Your task to perform on an android device: Open Google Chrome and click the shortcut for Amazon.com Image 0: 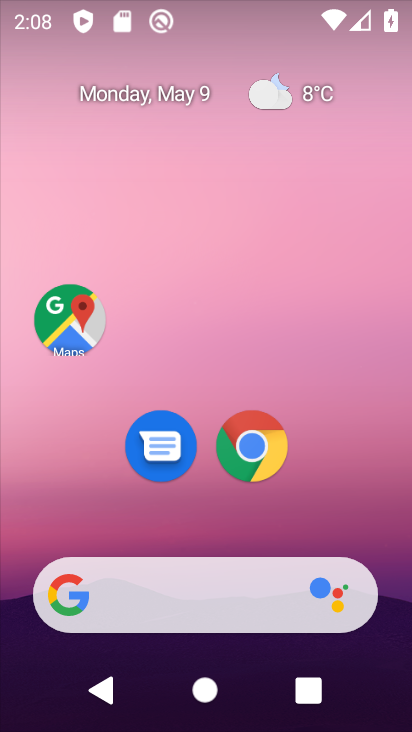
Step 0: click (253, 439)
Your task to perform on an android device: Open Google Chrome and click the shortcut for Amazon.com Image 1: 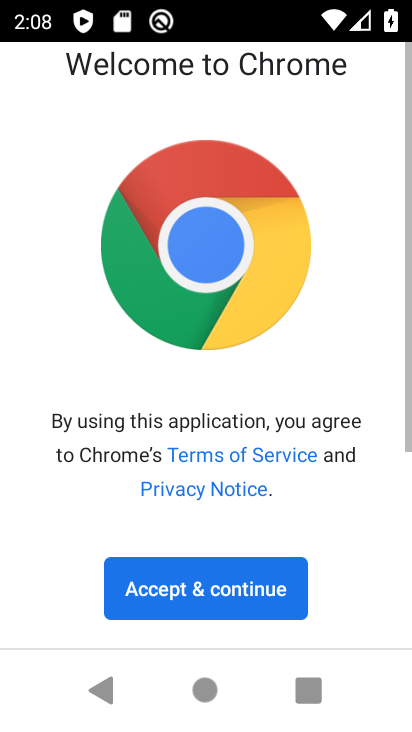
Step 1: click (189, 597)
Your task to perform on an android device: Open Google Chrome and click the shortcut for Amazon.com Image 2: 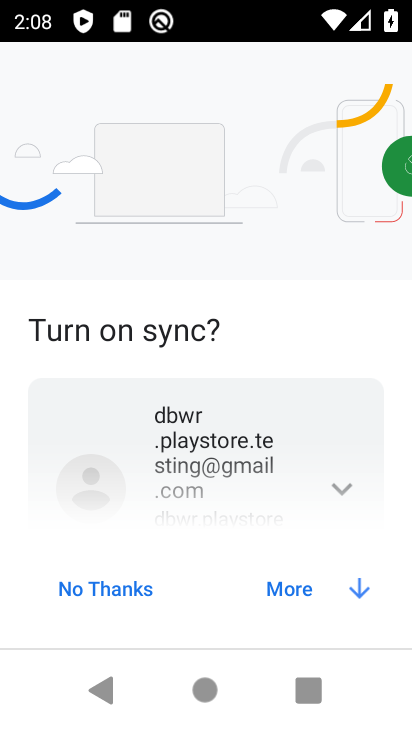
Step 2: click (272, 587)
Your task to perform on an android device: Open Google Chrome and click the shortcut for Amazon.com Image 3: 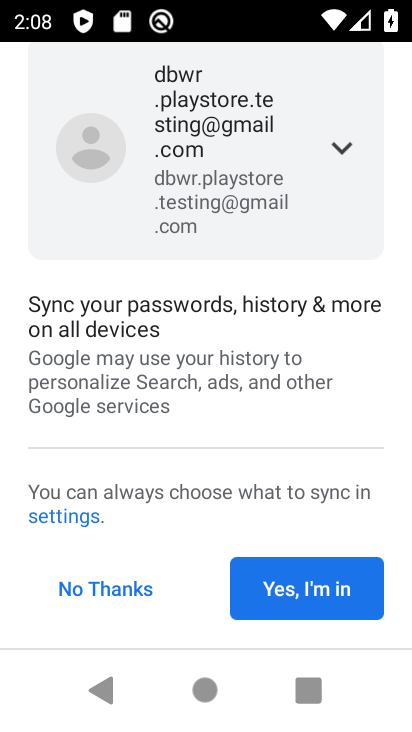
Step 3: click (272, 587)
Your task to perform on an android device: Open Google Chrome and click the shortcut for Amazon.com Image 4: 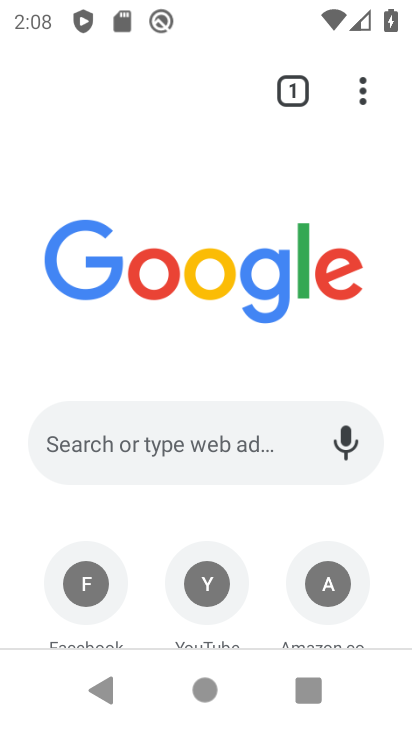
Step 4: click (314, 583)
Your task to perform on an android device: Open Google Chrome and click the shortcut for Amazon.com Image 5: 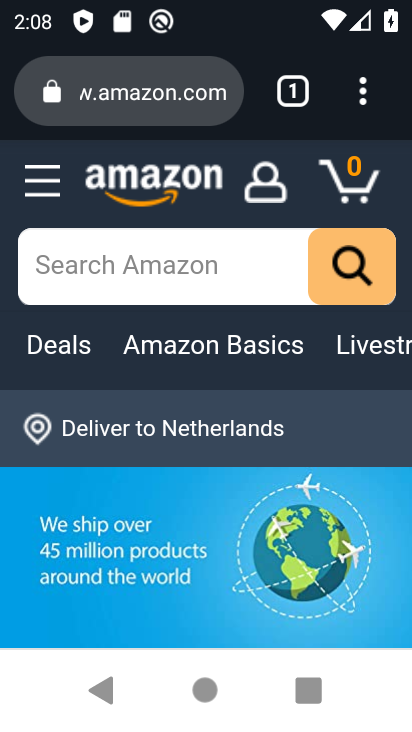
Step 5: task complete